Your task to perform on an android device: Open Youtube and go to "Your channel" Image 0: 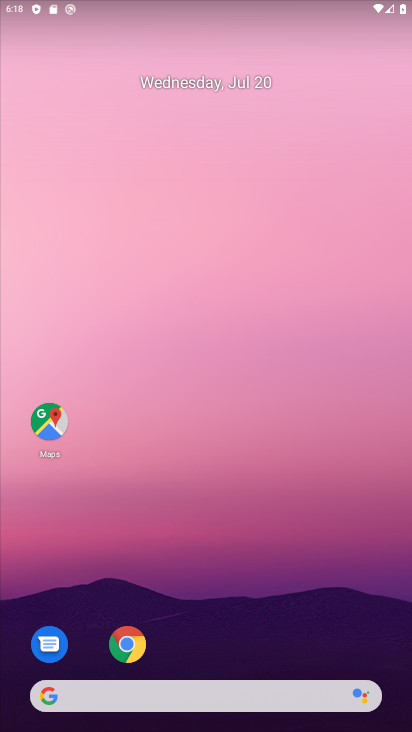
Step 0: press home button
Your task to perform on an android device: Open Youtube and go to "Your channel" Image 1: 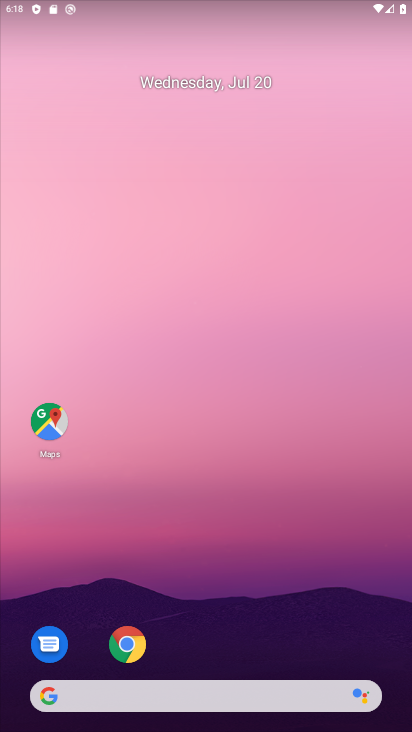
Step 1: drag from (261, 633) to (293, 135)
Your task to perform on an android device: Open Youtube and go to "Your channel" Image 2: 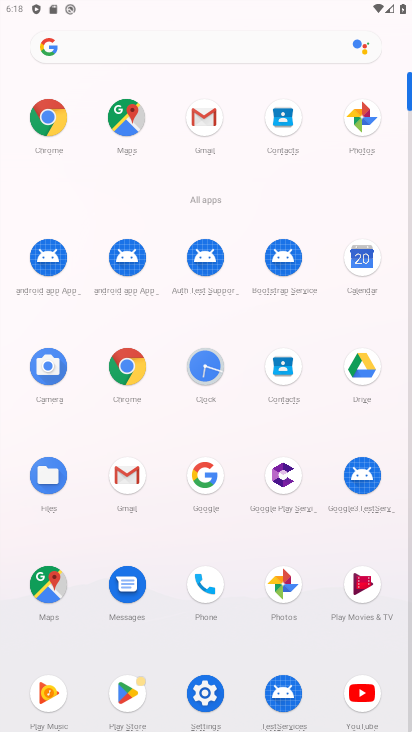
Step 2: click (352, 700)
Your task to perform on an android device: Open Youtube and go to "Your channel" Image 3: 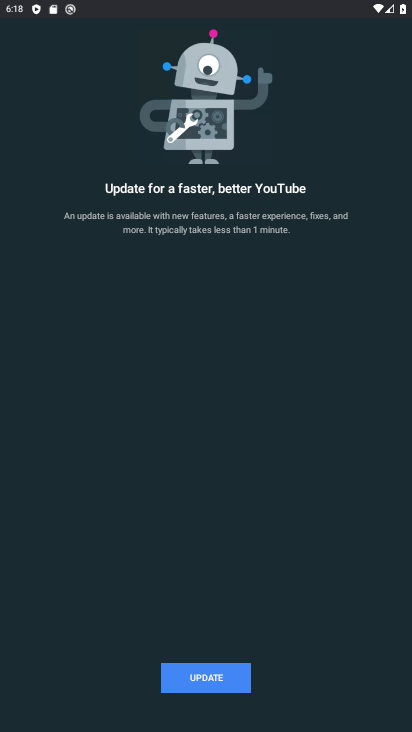
Step 3: click (211, 684)
Your task to perform on an android device: Open Youtube and go to "Your channel" Image 4: 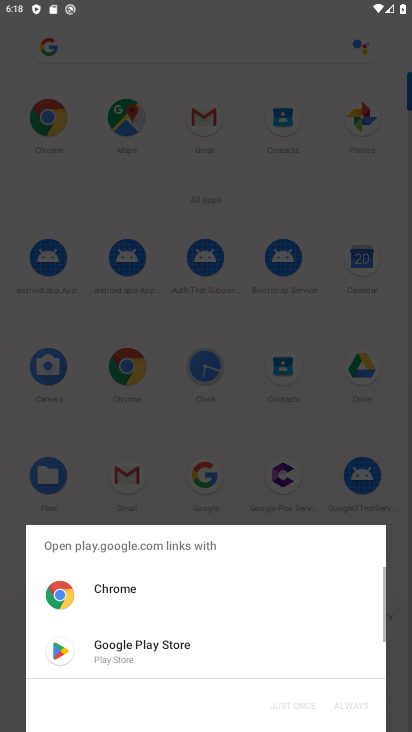
Step 4: click (135, 652)
Your task to perform on an android device: Open Youtube and go to "Your channel" Image 5: 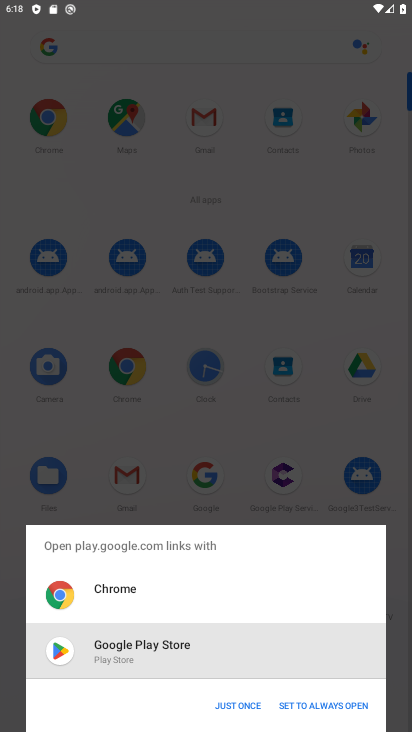
Step 5: click (222, 705)
Your task to perform on an android device: Open Youtube and go to "Your channel" Image 6: 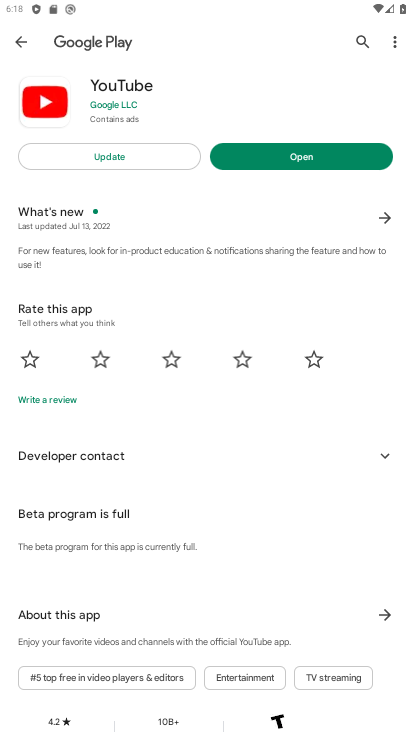
Step 6: click (119, 152)
Your task to perform on an android device: Open Youtube and go to "Your channel" Image 7: 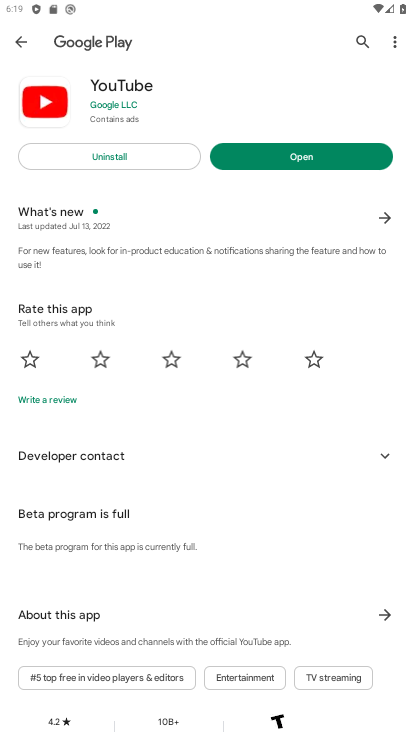
Step 7: click (302, 167)
Your task to perform on an android device: Open Youtube and go to "Your channel" Image 8: 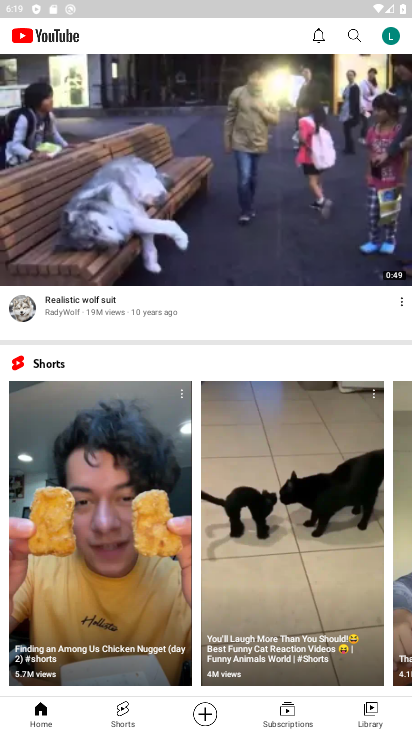
Step 8: click (392, 29)
Your task to perform on an android device: Open Youtube and go to "Your channel" Image 9: 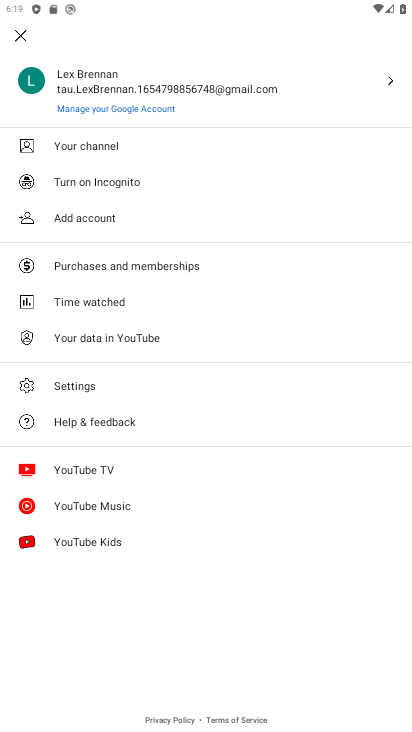
Step 9: click (89, 155)
Your task to perform on an android device: Open Youtube and go to "Your channel" Image 10: 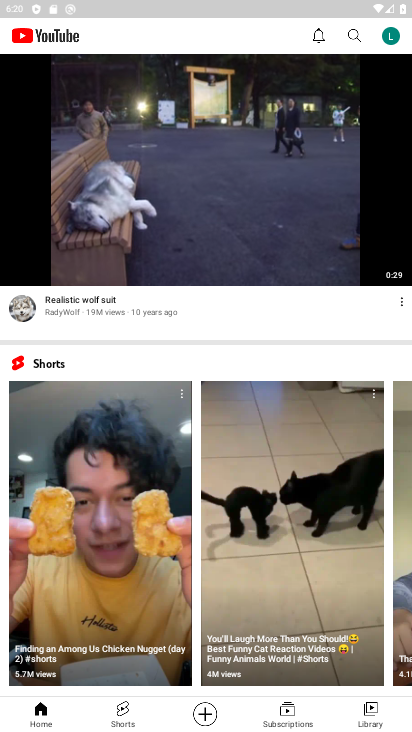
Step 10: task complete